Your task to perform on an android device: Search for "razer kraken" on newegg, select the first entry, and add it to the cart. Image 0: 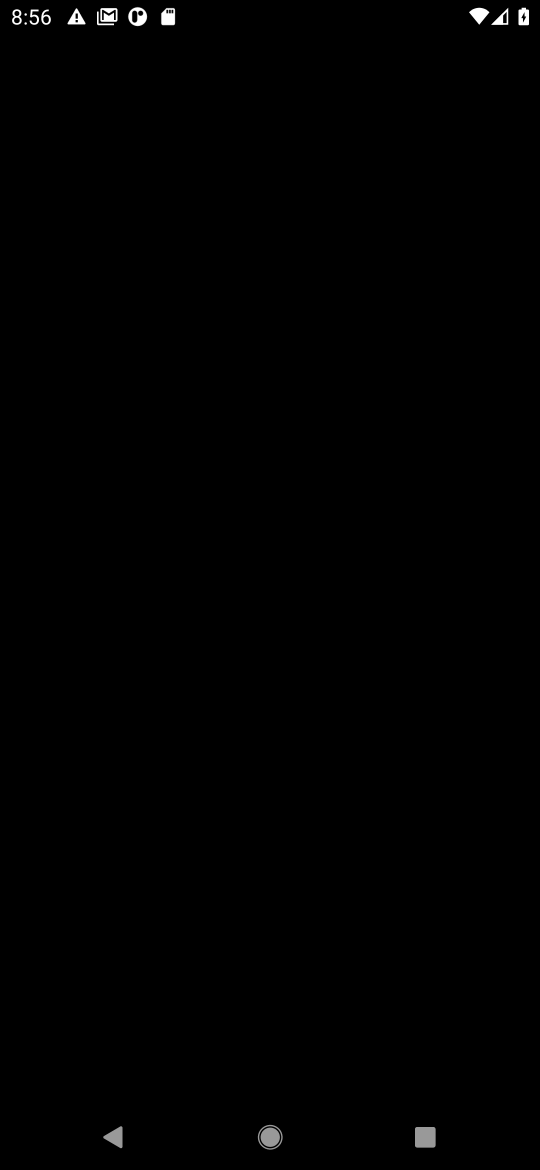
Step 0: press home button
Your task to perform on an android device: Search for "razer kraken" on newegg, select the first entry, and add it to the cart. Image 1: 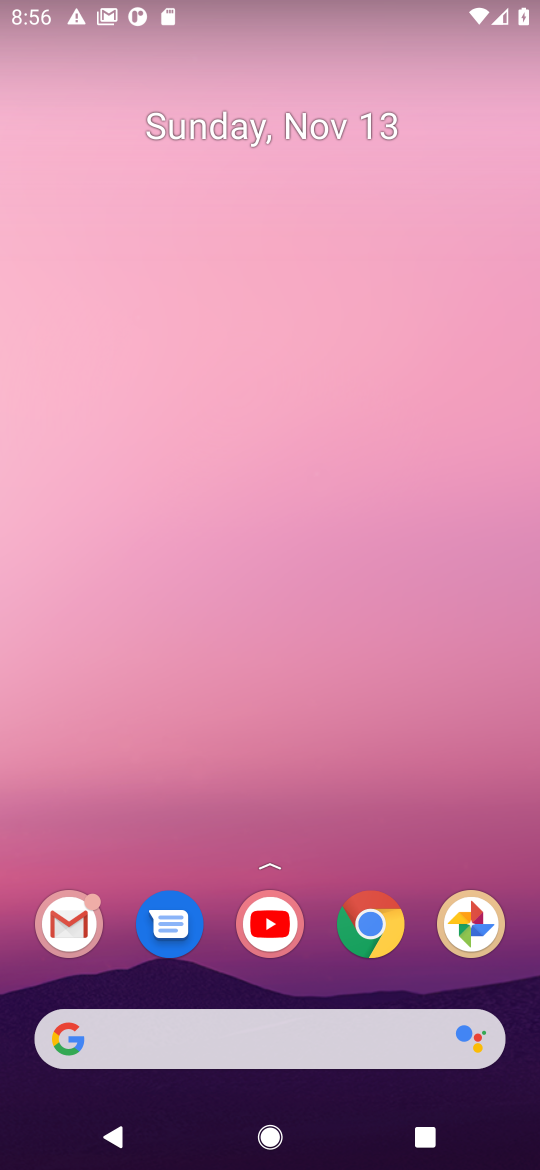
Step 1: click (364, 937)
Your task to perform on an android device: Search for "razer kraken" on newegg, select the first entry, and add it to the cart. Image 2: 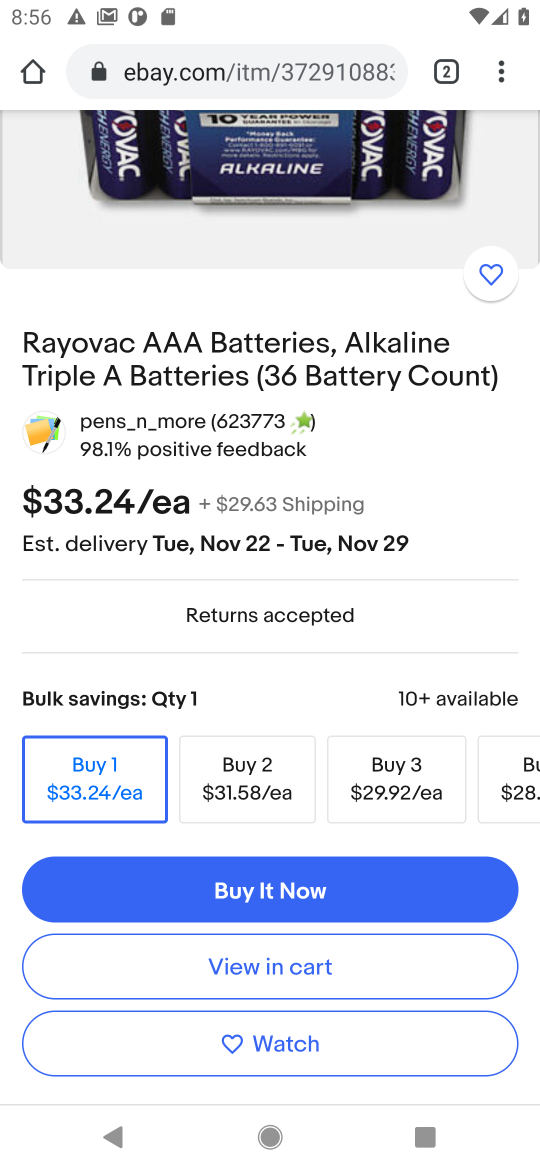
Step 2: click (215, 78)
Your task to perform on an android device: Search for "razer kraken" on newegg, select the first entry, and add it to the cart. Image 3: 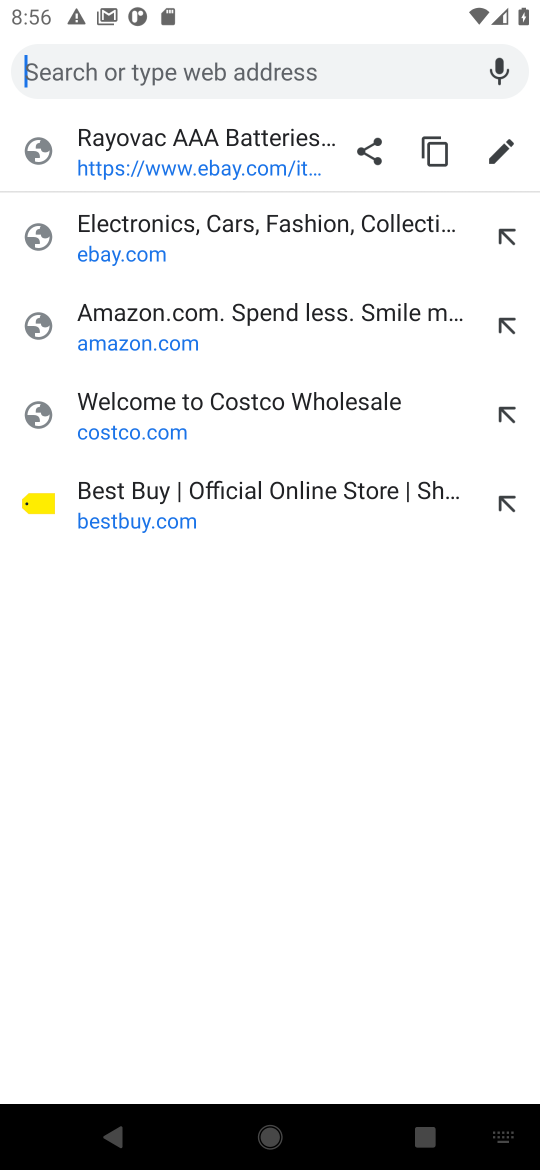
Step 3: type "newegg.com"
Your task to perform on an android device: Search for "razer kraken" on newegg, select the first entry, and add it to the cart. Image 4: 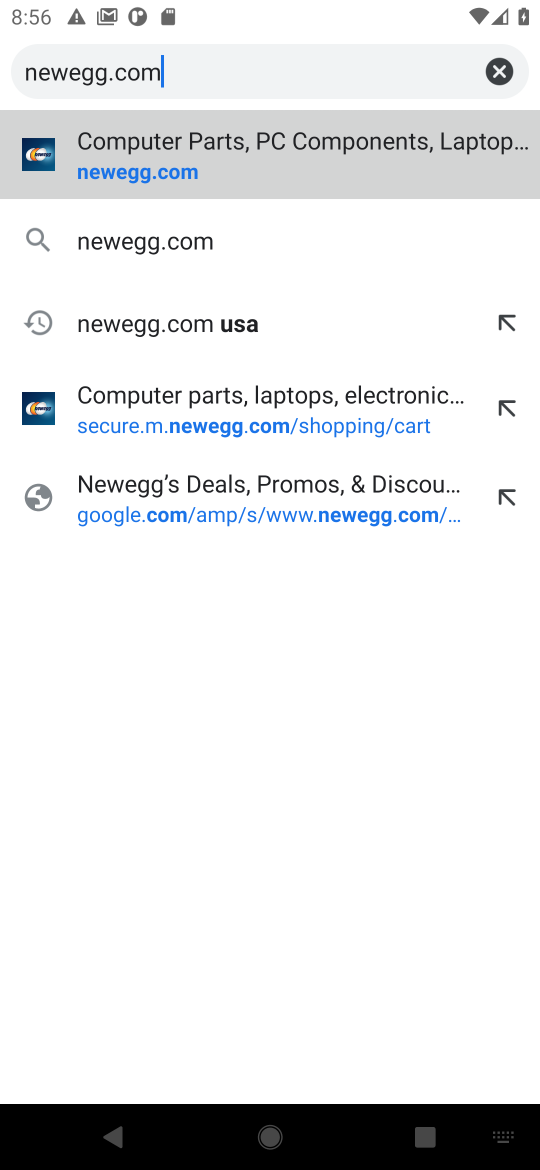
Step 4: click (96, 188)
Your task to perform on an android device: Search for "razer kraken" on newegg, select the first entry, and add it to the cart. Image 5: 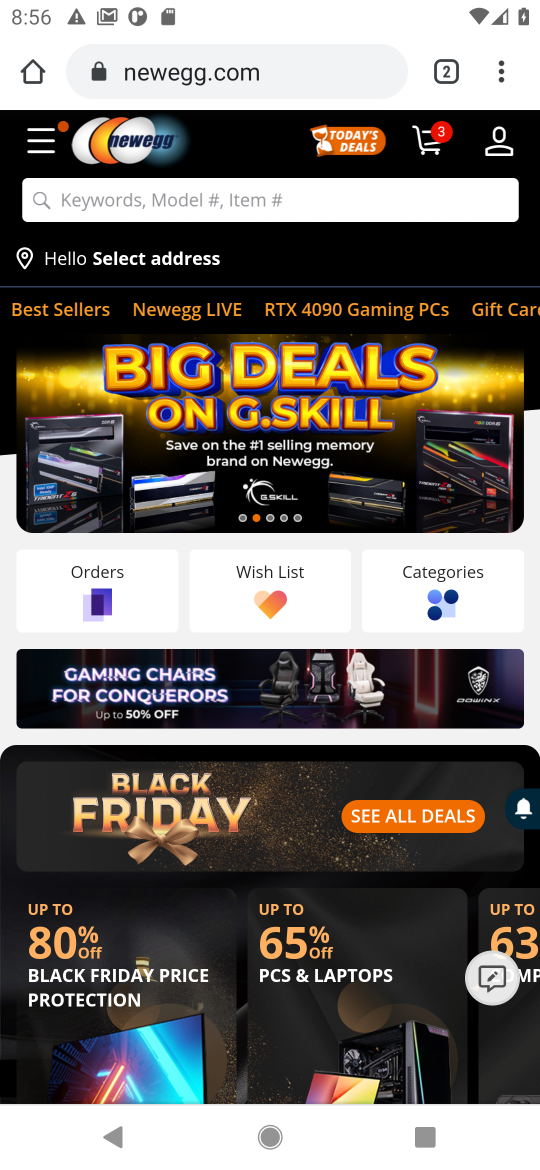
Step 5: click (127, 194)
Your task to perform on an android device: Search for "razer kraken" on newegg, select the first entry, and add it to the cart. Image 6: 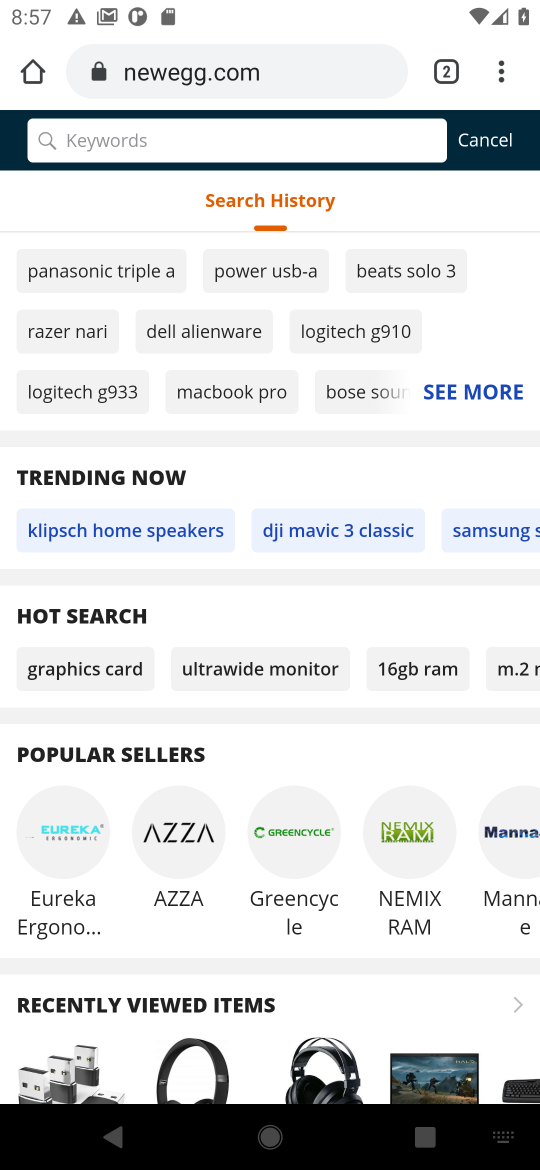
Step 6: type "razer kraken"
Your task to perform on an android device: Search for "razer kraken" on newegg, select the first entry, and add it to the cart. Image 7: 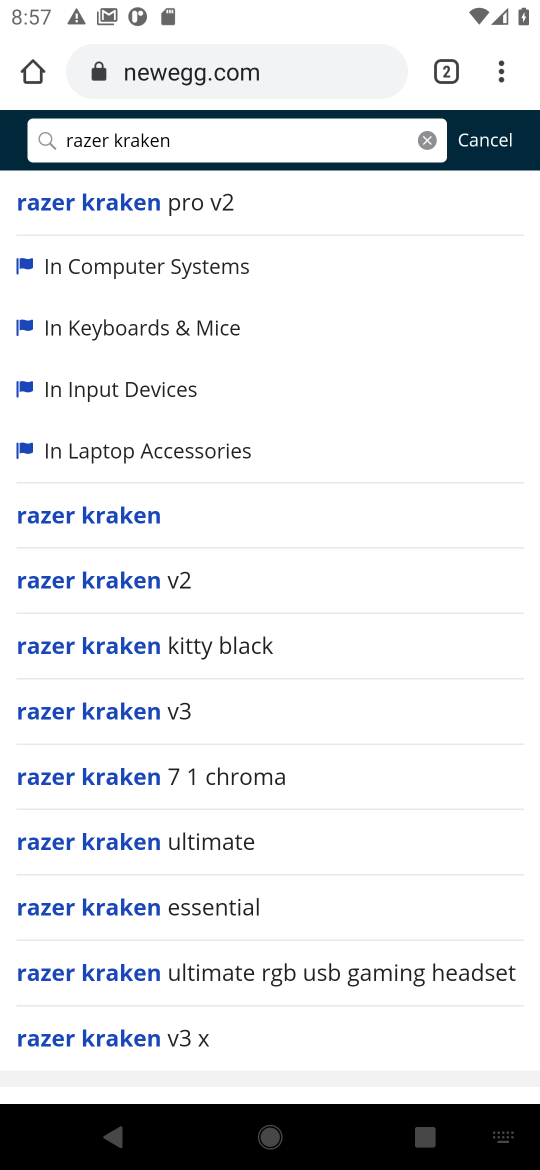
Step 7: click (119, 524)
Your task to perform on an android device: Search for "razer kraken" on newegg, select the first entry, and add it to the cart. Image 8: 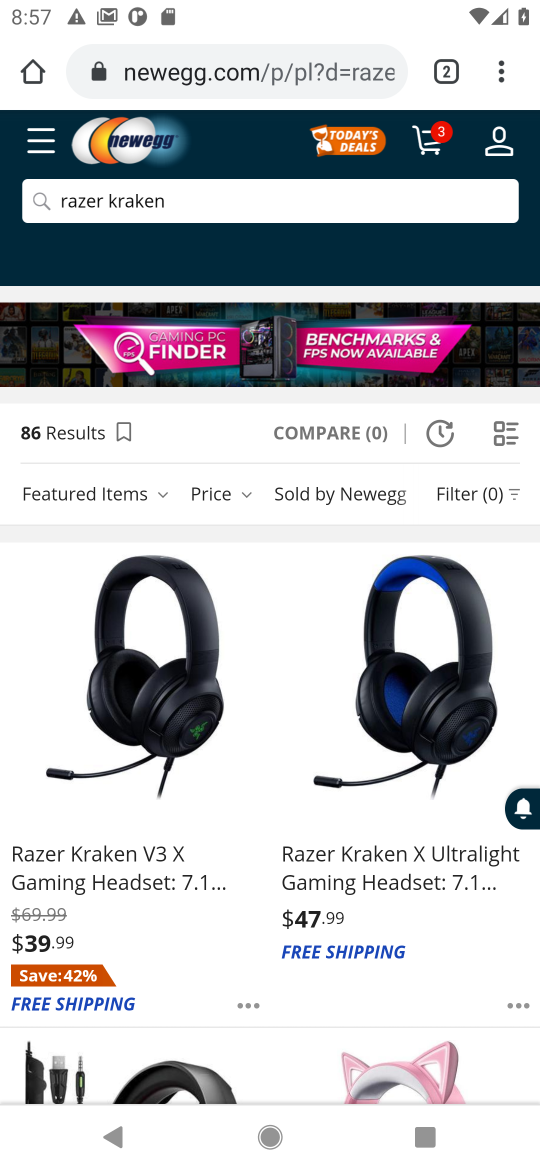
Step 8: click (114, 692)
Your task to perform on an android device: Search for "razer kraken" on newegg, select the first entry, and add it to the cart. Image 9: 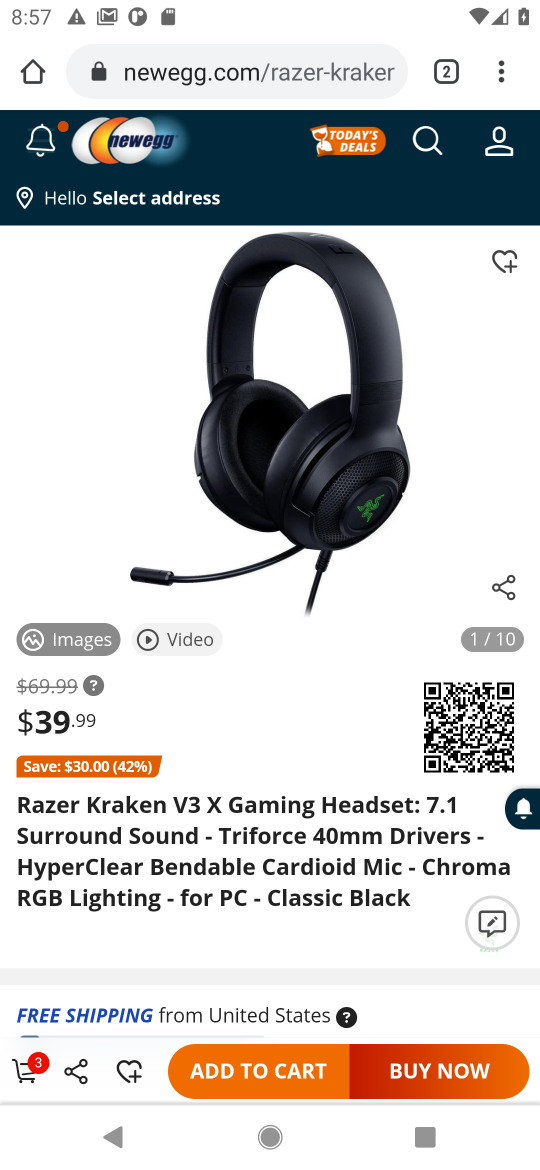
Step 9: click (254, 1082)
Your task to perform on an android device: Search for "razer kraken" on newegg, select the first entry, and add it to the cart. Image 10: 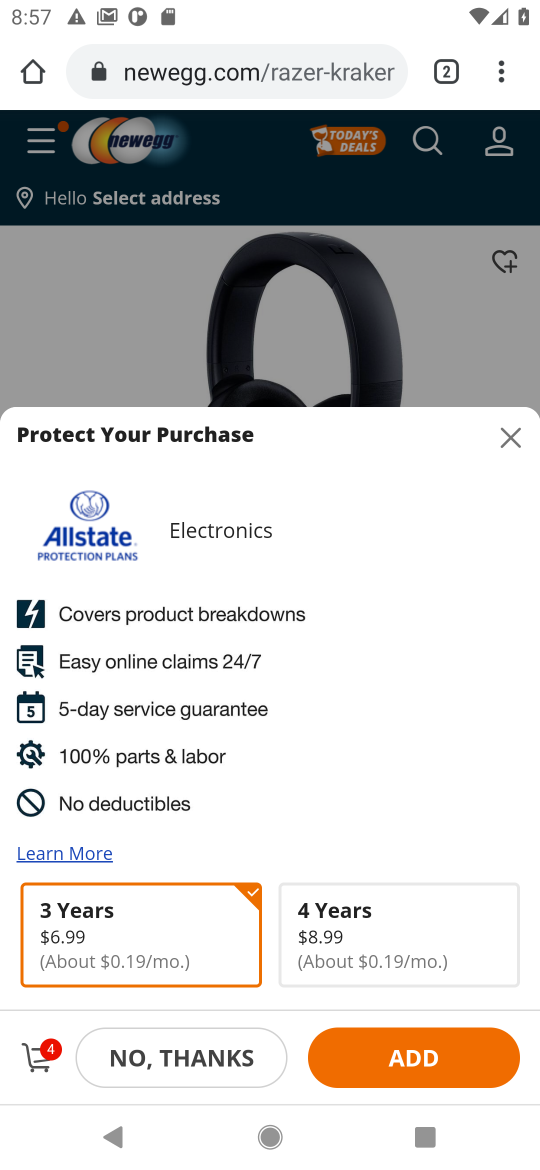
Step 10: task complete